Your task to perform on an android device: remove spam from my inbox in the gmail app Image 0: 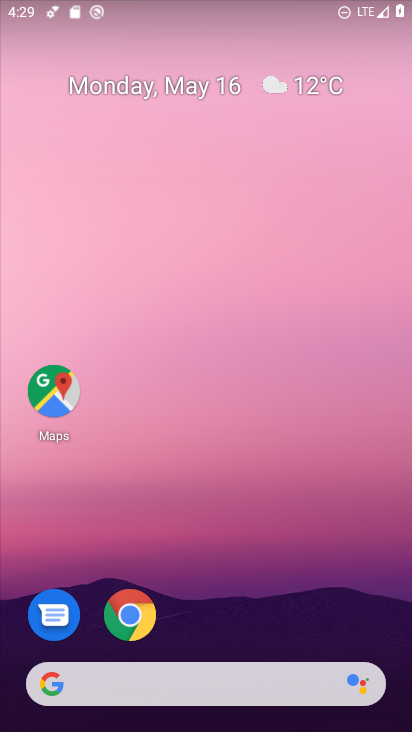
Step 0: drag from (222, 725) to (236, 34)
Your task to perform on an android device: remove spam from my inbox in the gmail app Image 1: 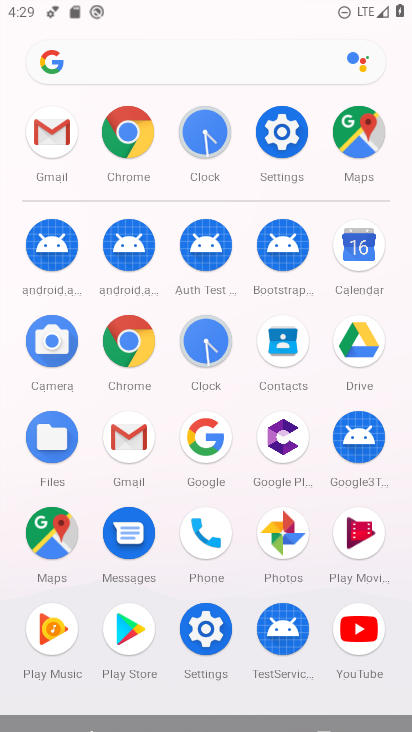
Step 1: click (123, 430)
Your task to perform on an android device: remove spam from my inbox in the gmail app Image 2: 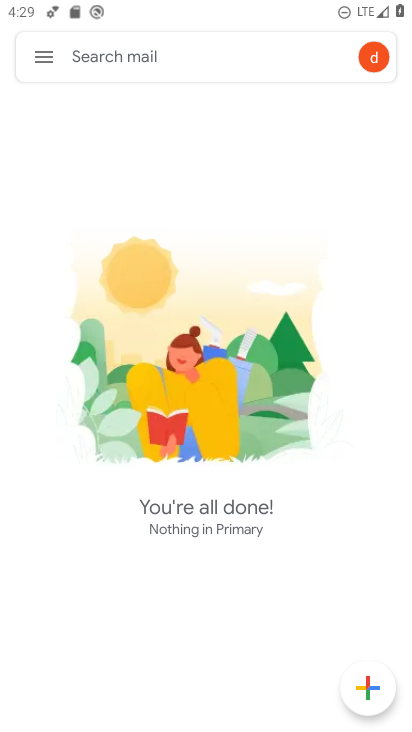
Step 2: task complete